Your task to perform on an android device: Open the calendar app, open the side menu, and click the "Day" option Image 0: 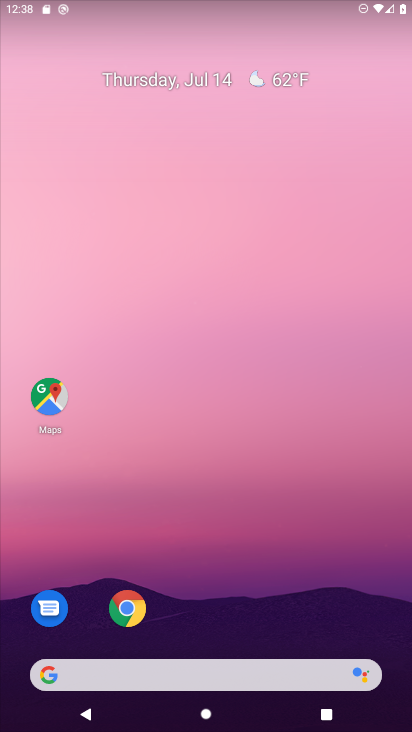
Step 0: drag from (234, 720) to (243, 77)
Your task to perform on an android device: Open the calendar app, open the side menu, and click the "Day" option Image 1: 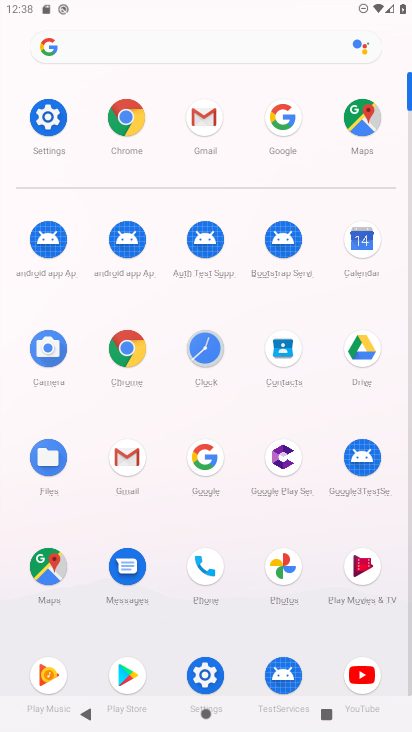
Step 1: click (360, 238)
Your task to perform on an android device: Open the calendar app, open the side menu, and click the "Day" option Image 2: 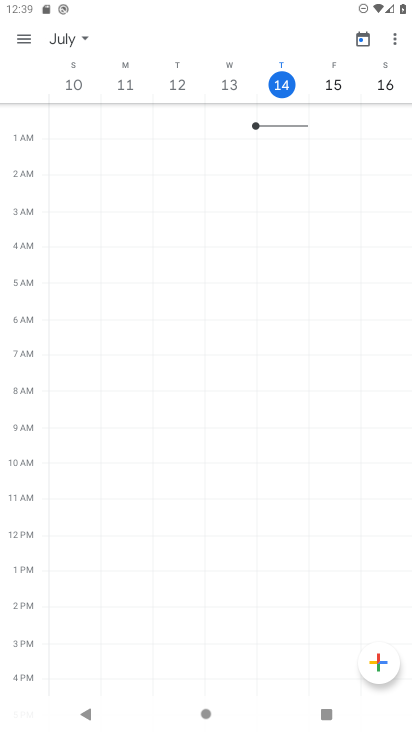
Step 2: click (24, 36)
Your task to perform on an android device: Open the calendar app, open the side menu, and click the "Day" option Image 3: 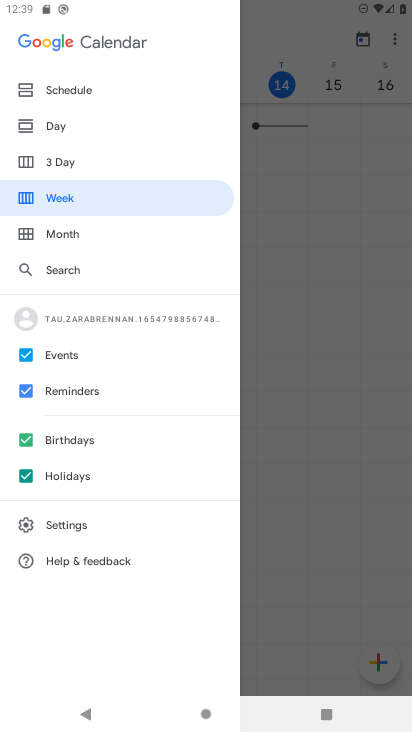
Step 3: click (57, 124)
Your task to perform on an android device: Open the calendar app, open the side menu, and click the "Day" option Image 4: 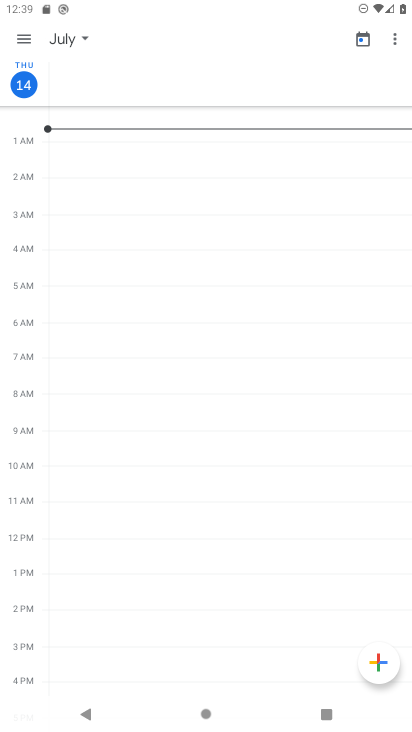
Step 4: task complete